Your task to perform on an android device: Go to internet settings Image 0: 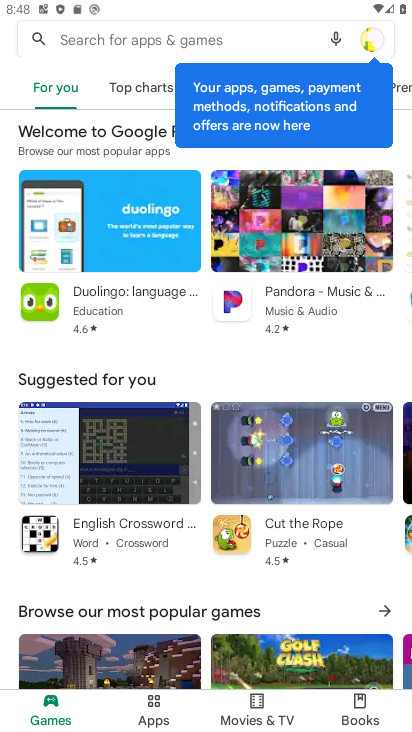
Step 0: press home button
Your task to perform on an android device: Go to internet settings Image 1: 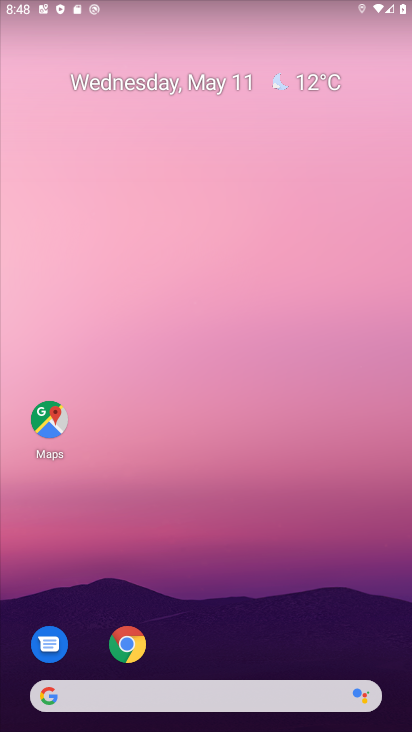
Step 1: drag from (210, 583) to (125, 119)
Your task to perform on an android device: Go to internet settings Image 2: 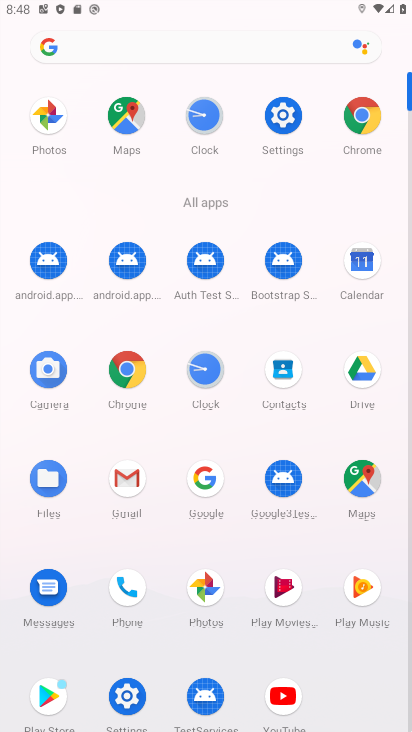
Step 2: click (291, 129)
Your task to perform on an android device: Go to internet settings Image 3: 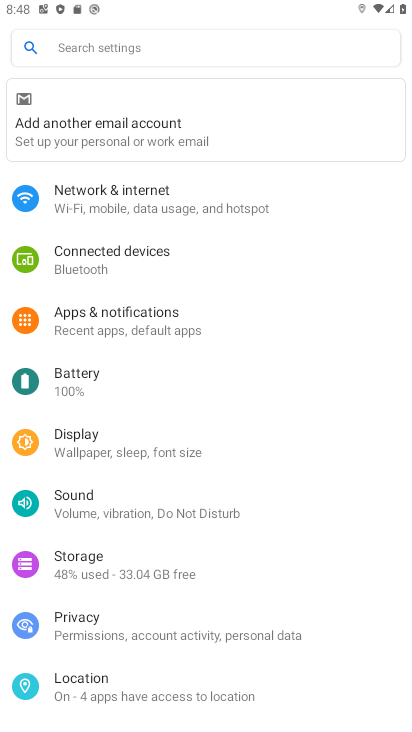
Step 3: click (123, 200)
Your task to perform on an android device: Go to internet settings Image 4: 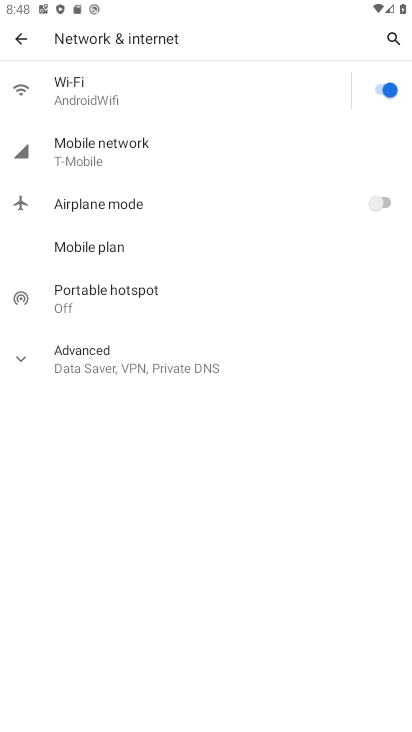
Step 4: task complete